Your task to perform on an android device: change the upload size in google photos Image 0: 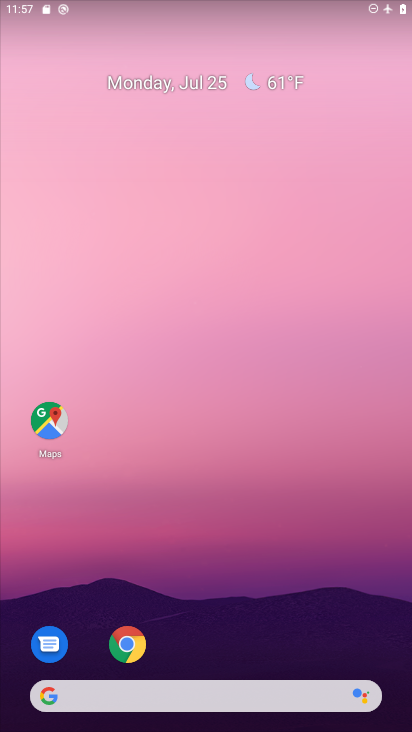
Step 0: drag from (251, 569) to (198, 143)
Your task to perform on an android device: change the upload size in google photos Image 1: 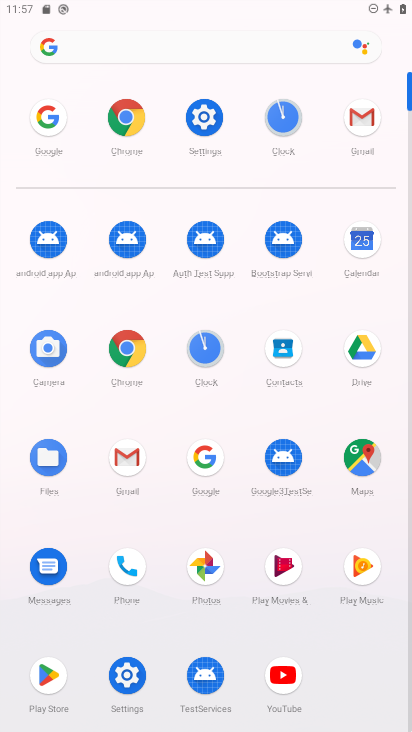
Step 1: click (201, 555)
Your task to perform on an android device: change the upload size in google photos Image 2: 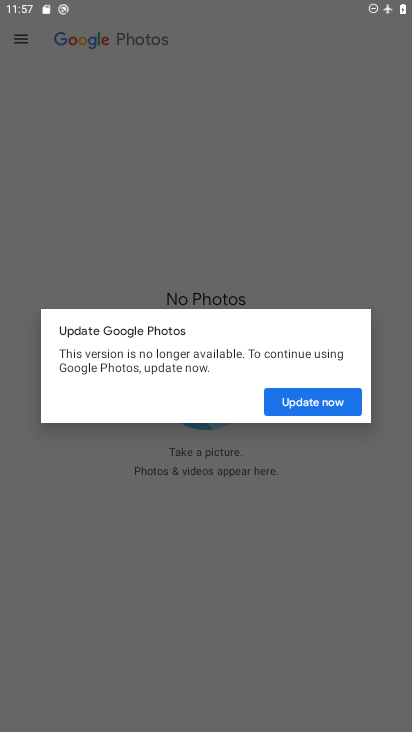
Step 2: click (340, 400)
Your task to perform on an android device: change the upload size in google photos Image 3: 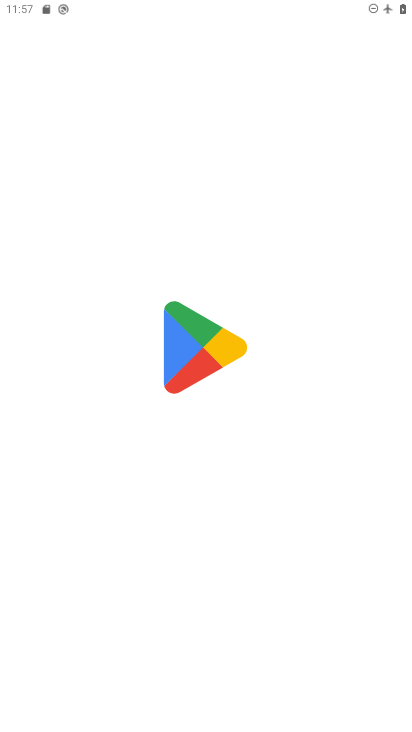
Step 3: press back button
Your task to perform on an android device: change the upload size in google photos Image 4: 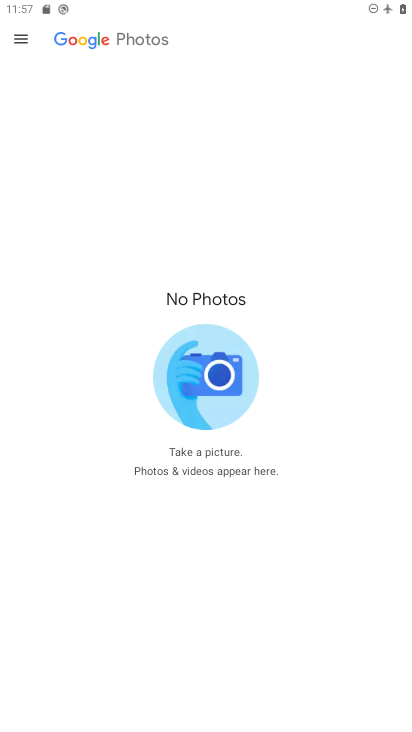
Step 4: click (30, 43)
Your task to perform on an android device: change the upload size in google photos Image 5: 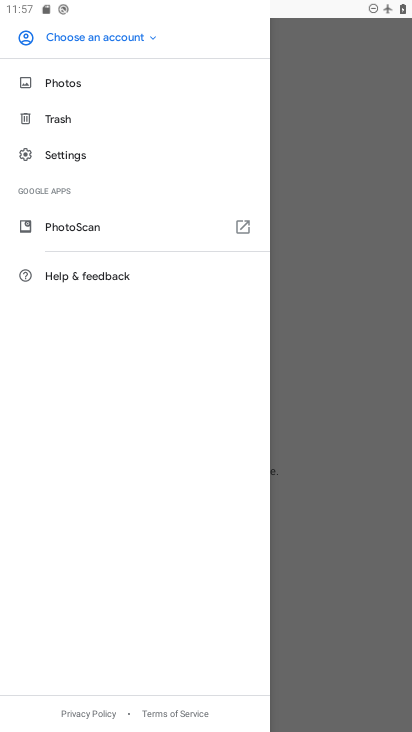
Step 5: click (67, 145)
Your task to perform on an android device: change the upload size in google photos Image 6: 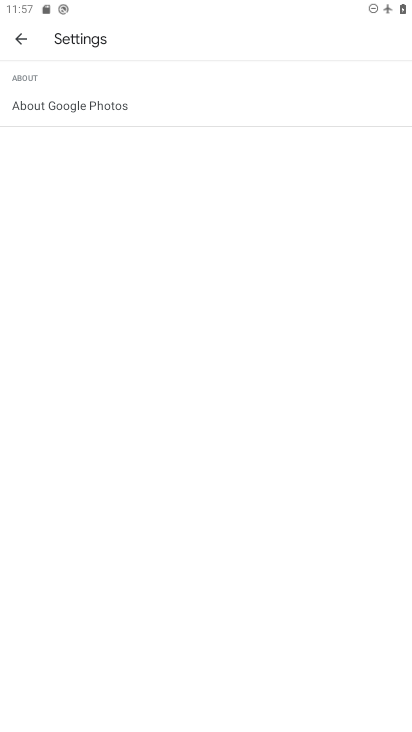
Step 6: click (69, 105)
Your task to perform on an android device: change the upload size in google photos Image 7: 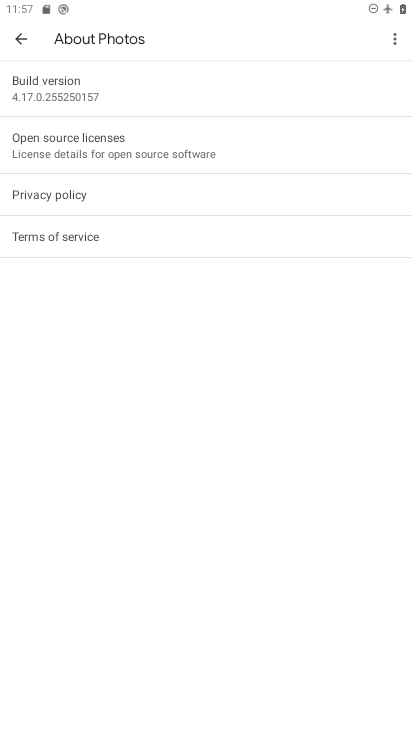
Step 7: click (18, 42)
Your task to perform on an android device: change the upload size in google photos Image 8: 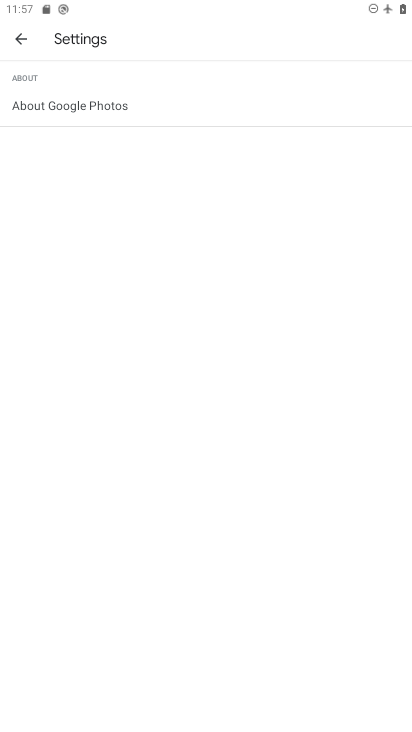
Step 8: click (18, 42)
Your task to perform on an android device: change the upload size in google photos Image 9: 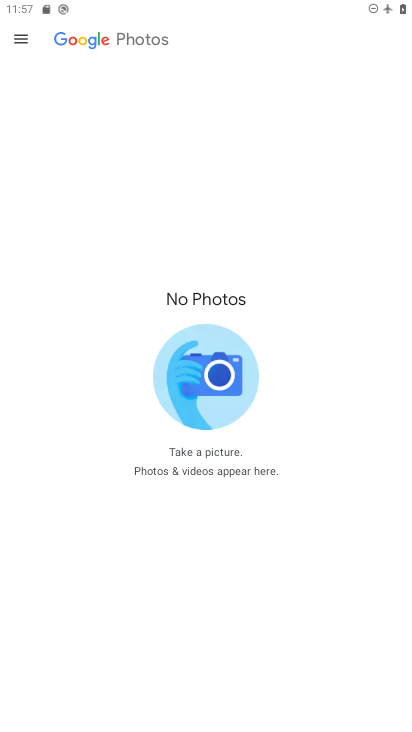
Step 9: click (193, 398)
Your task to perform on an android device: change the upload size in google photos Image 10: 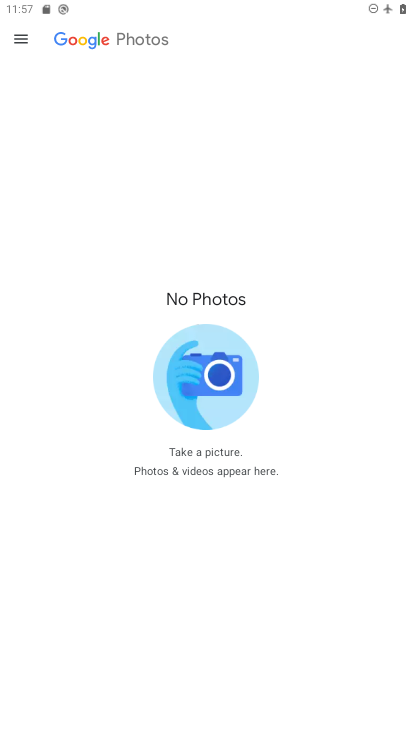
Step 10: click (193, 451)
Your task to perform on an android device: change the upload size in google photos Image 11: 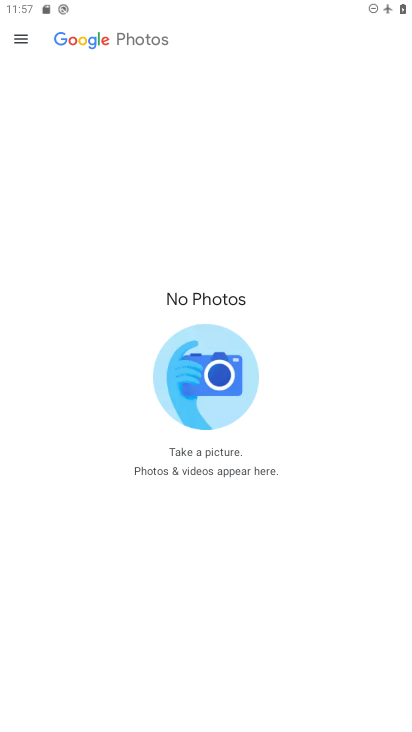
Step 11: click (193, 451)
Your task to perform on an android device: change the upload size in google photos Image 12: 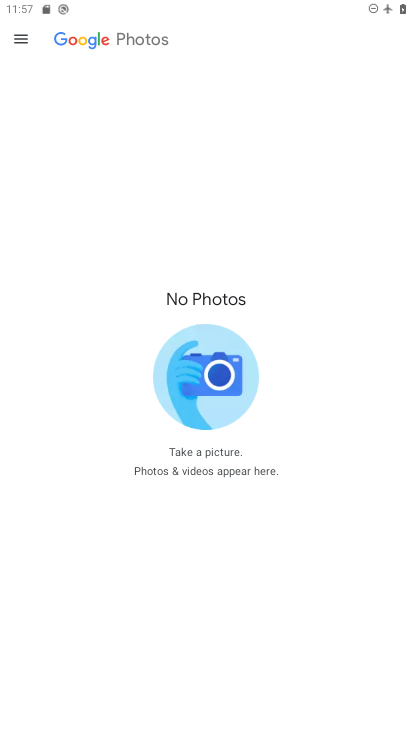
Step 12: drag from (229, 722) to (239, 689)
Your task to perform on an android device: change the upload size in google photos Image 13: 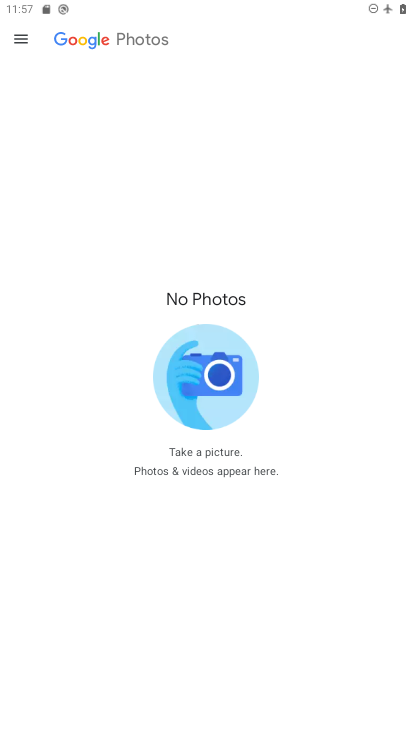
Step 13: click (239, 683)
Your task to perform on an android device: change the upload size in google photos Image 14: 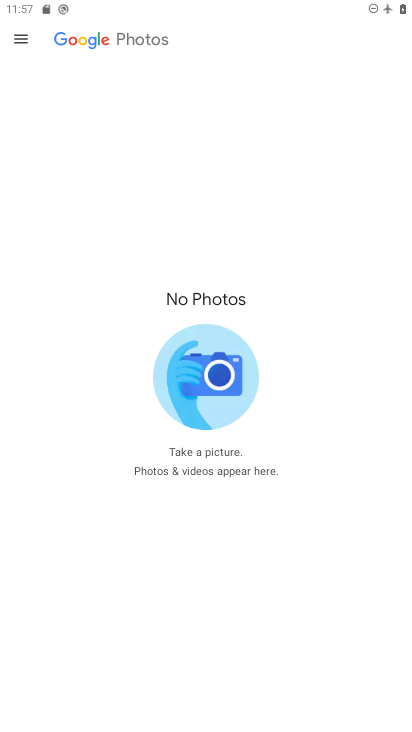
Step 14: click (239, 665)
Your task to perform on an android device: change the upload size in google photos Image 15: 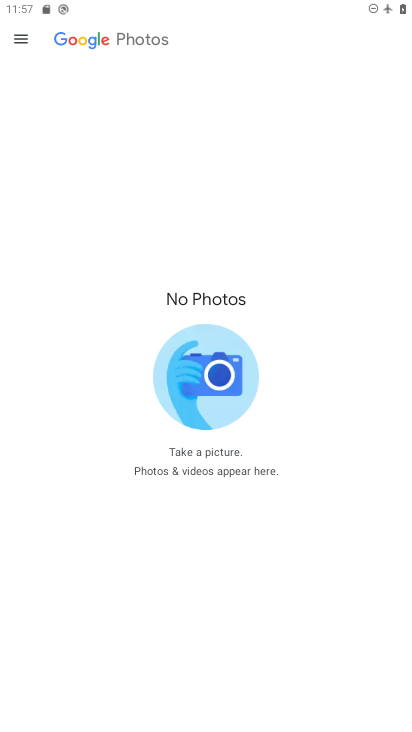
Step 15: click (160, 332)
Your task to perform on an android device: change the upload size in google photos Image 16: 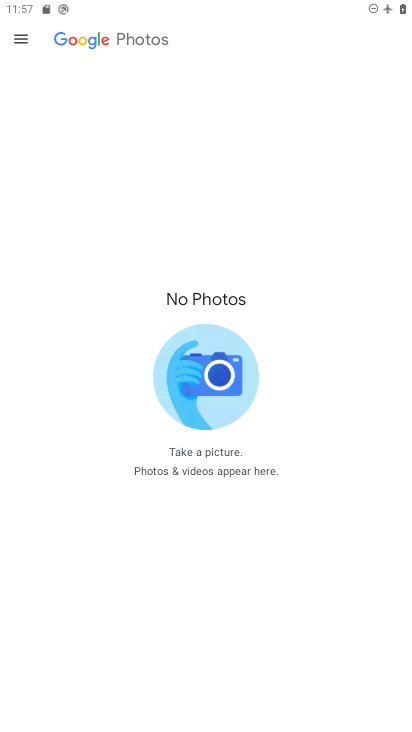
Step 16: click (191, 378)
Your task to perform on an android device: change the upload size in google photos Image 17: 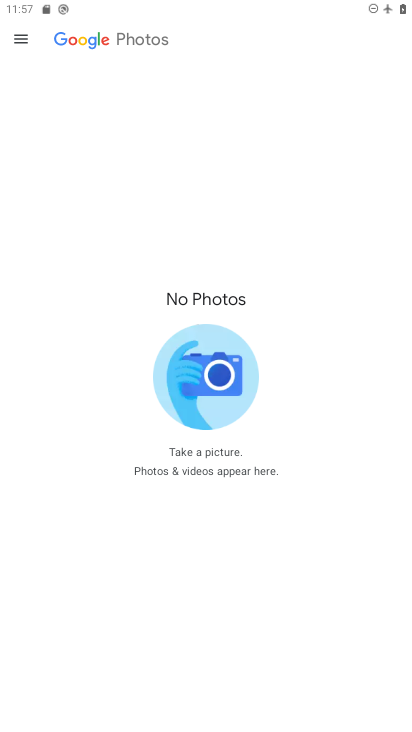
Step 17: click (213, 366)
Your task to perform on an android device: change the upload size in google photos Image 18: 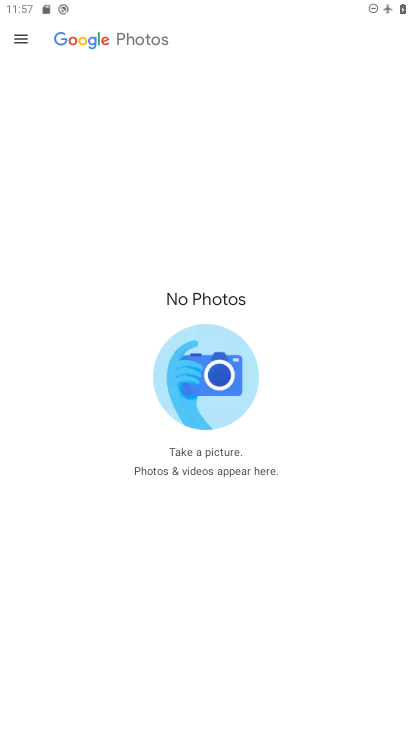
Step 18: click (222, 439)
Your task to perform on an android device: change the upload size in google photos Image 19: 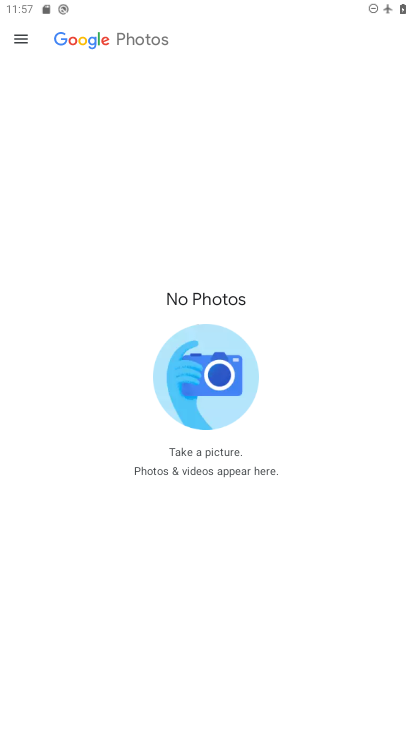
Step 19: click (108, 174)
Your task to perform on an android device: change the upload size in google photos Image 20: 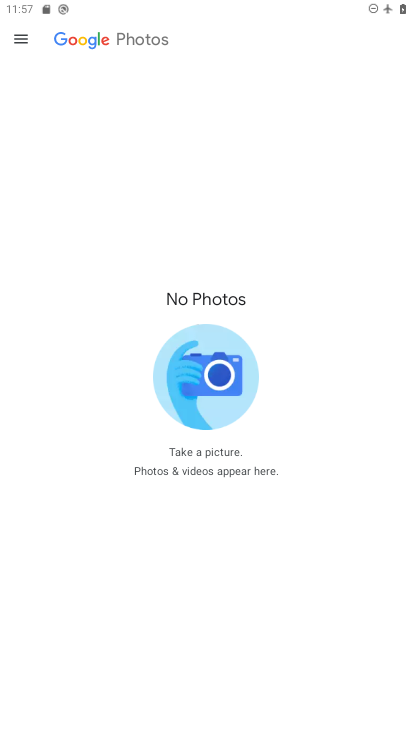
Step 20: task complete